Your task to perform on an android device: Open the phone app and click the voicemail tab. Image 0: 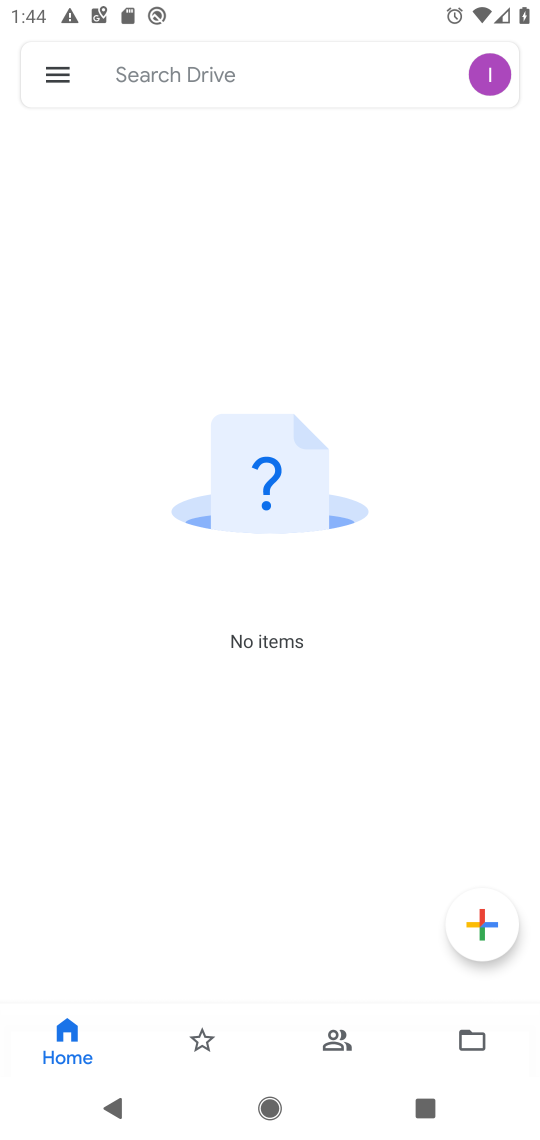
Step 0: press home button
Your task to perform on an android device: Open the phone app and click the voicemail tab. Image 1: 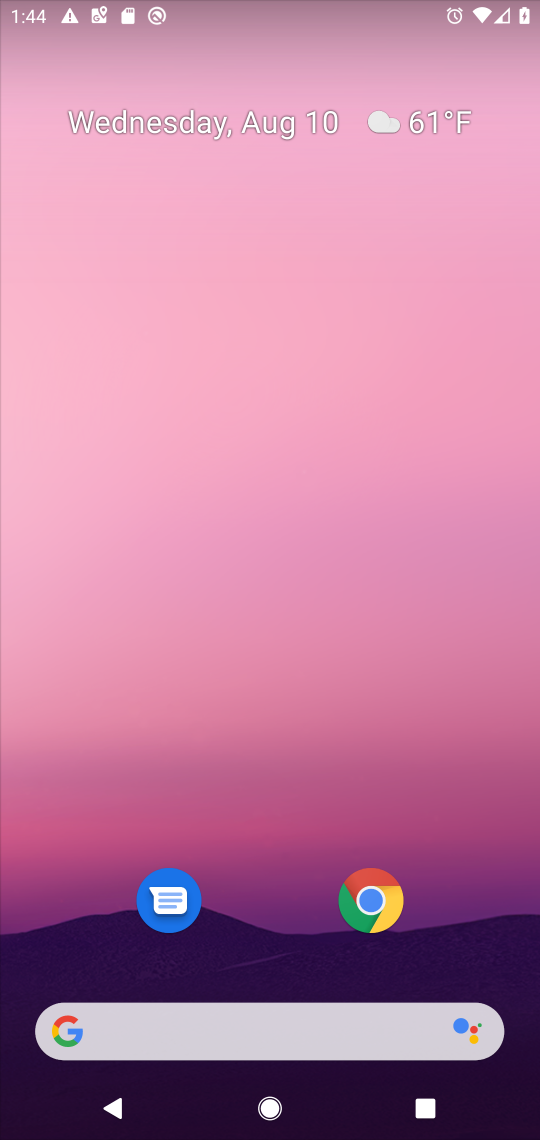
Step 1: drag from (342, 374) to (328, 17)
Your task to perform on an android device: Open the phone app and click the voicemail tab. Image 2: 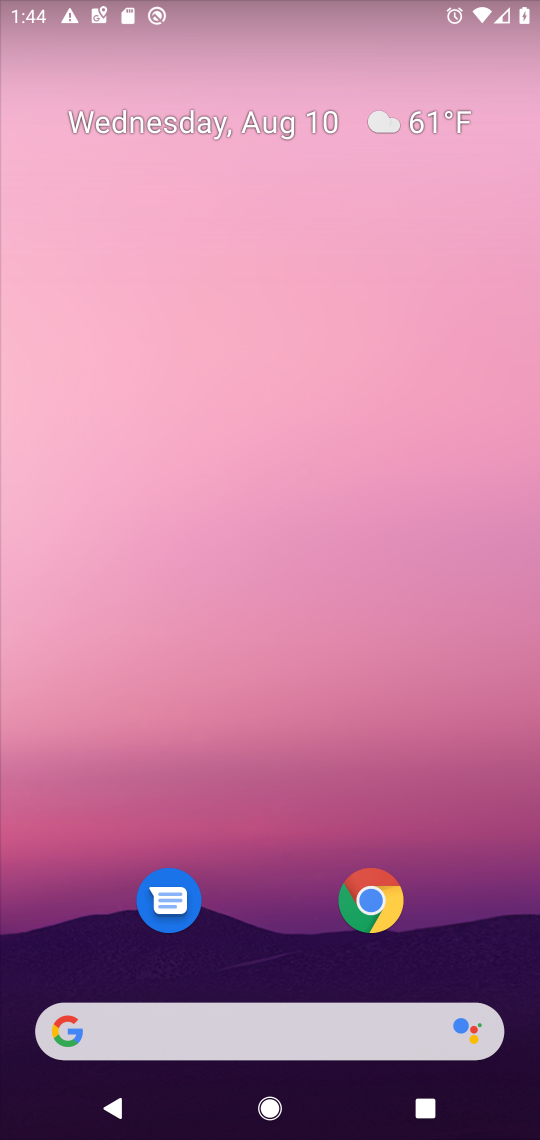
Step 2: drag from (225, 872) to (231, 12)
Your task to perform on an android device: Open the phone app and click the voicemail tab. Image 3: 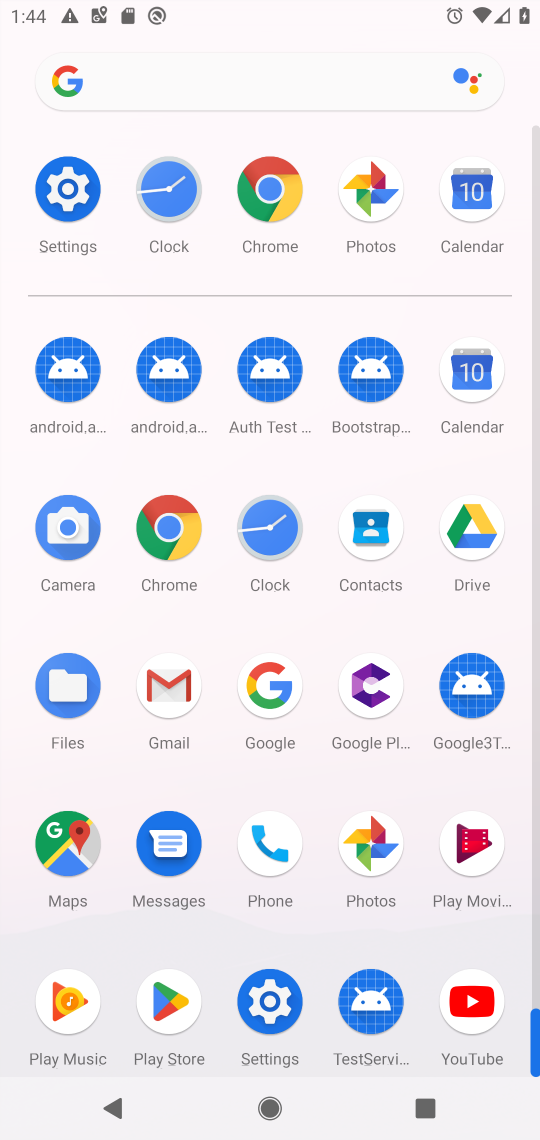
Step 3: click (265, 839)
Your task to perform on an android device: Open the phone app and click the voicemail tab. Image 4: 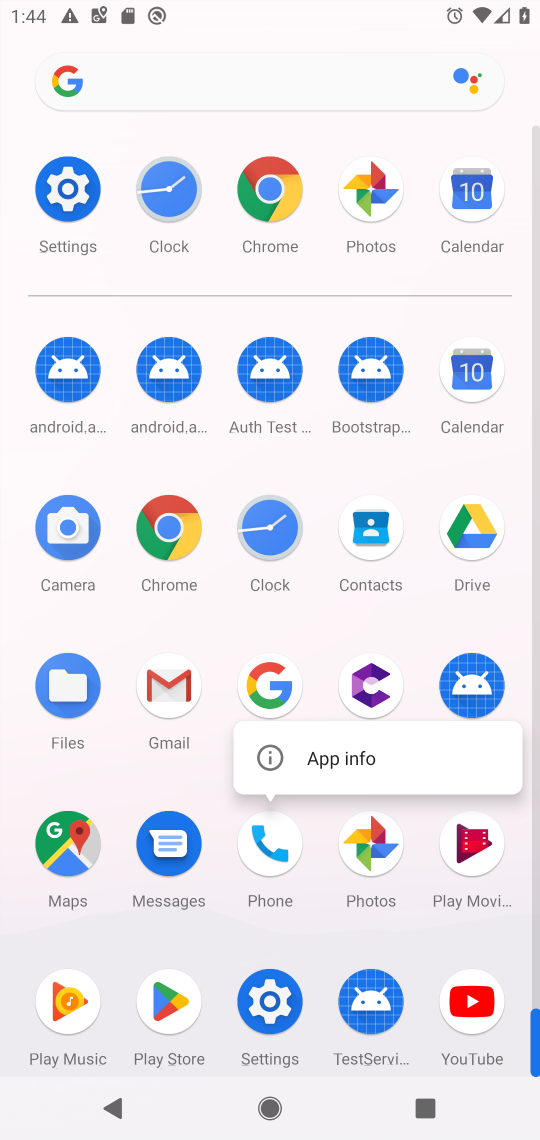
Step 4: click (265, 839)
Your task to perform on an android device: Open the phone app and click the voicemail tab. Image 5: 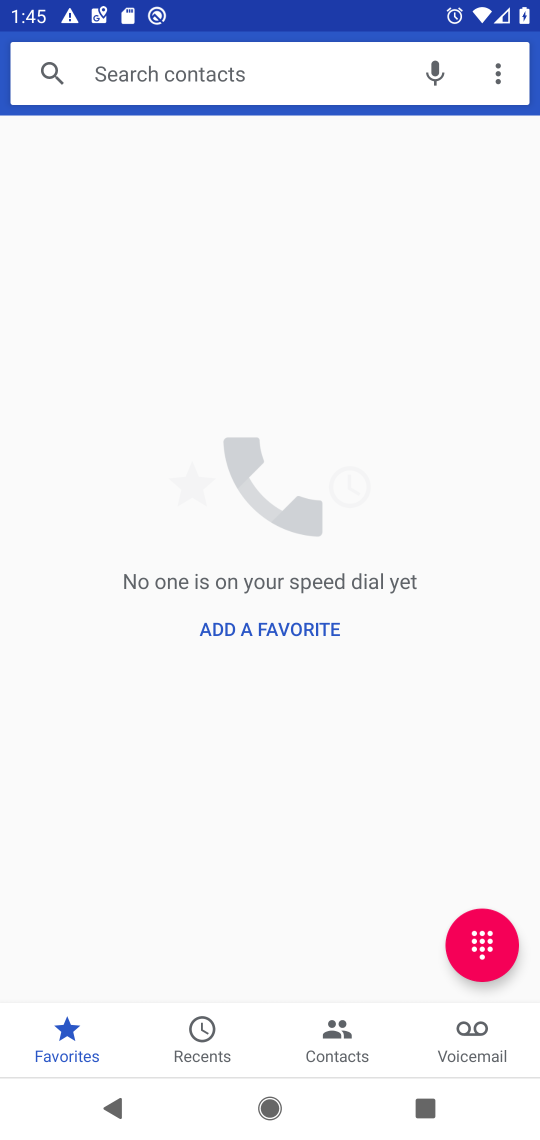
Step 5: click (474, 1028)
Your task to perform on an android device: Open the phone app and click the voicemail tab. Image 6: 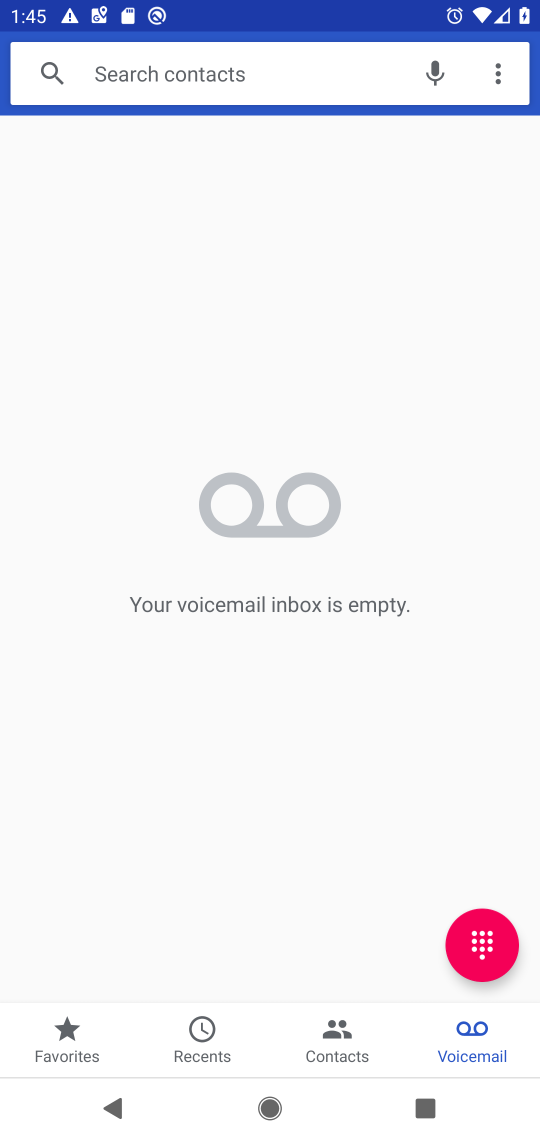
Step 6: task complete